Your task to perform on an android device: read, delete, or share a saved page in the chrome app Image 0: 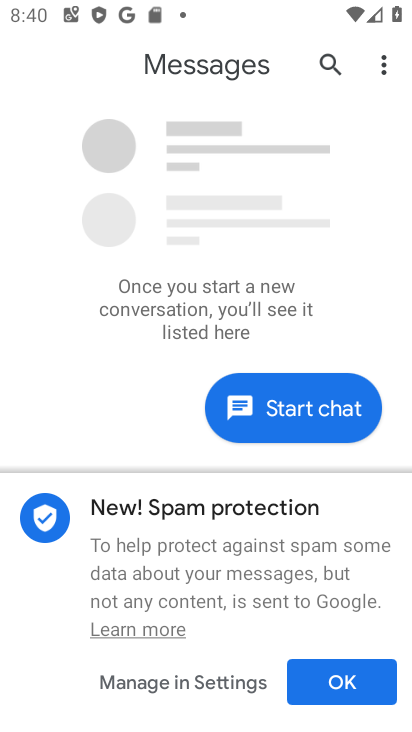
Step 0: press home button
Your task to perform on an android device: read, delete, or share a saved page in the chrome app Image 1: 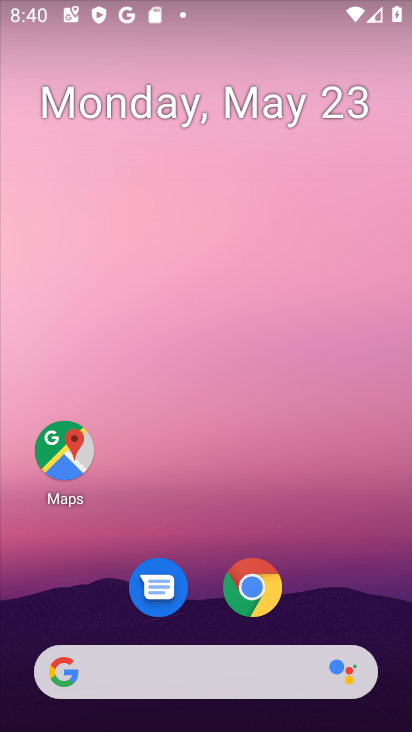
Step 1: click (247, 587)
Your task to perform on an android device: read, delete, or share a saved page in the chrome app Image 2: 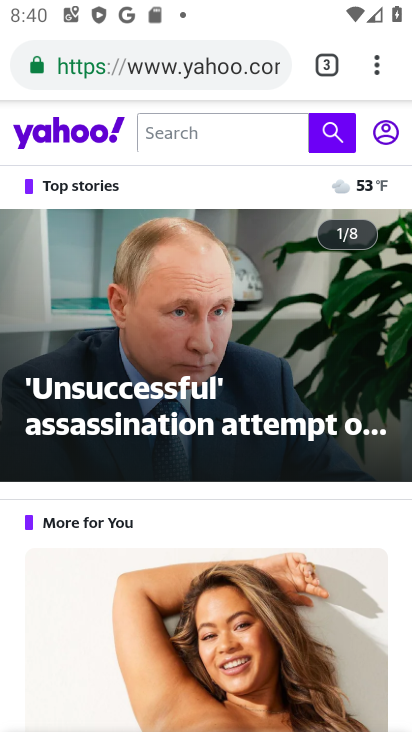
Step 2: drag from (386, 50) to (165, 425)
Your task to perform on an android device: read, delete, or share a saved page in the chrome app Image 3: 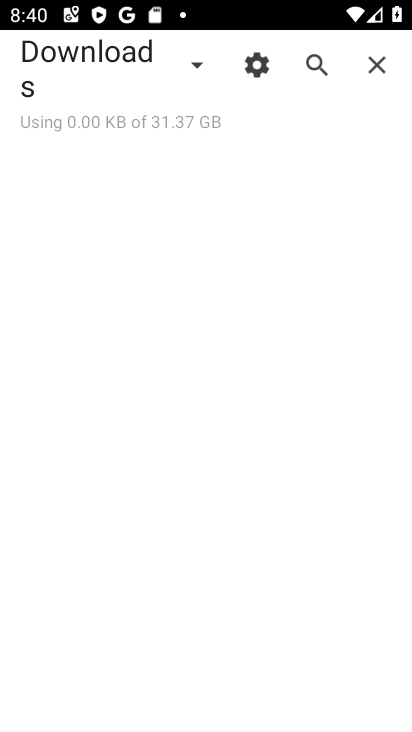
Step 3: click (186, 46)
Your task to perform on an android device: read, delete, or share a saved page in the chrome app Image 4: 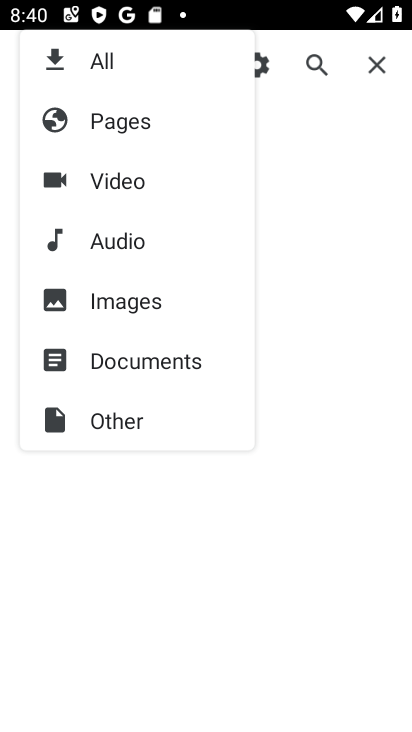
Step 4: click (132, 116)
Your task to perform on an android device: read, delete, or share a saved page in the chrome app Image 5: 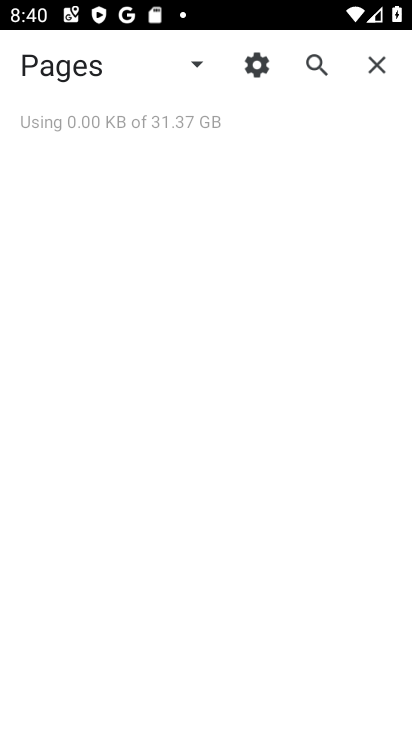
Step 5: task complete